Your task to perform on an android device: Do I have any events this weekend? Image 0: 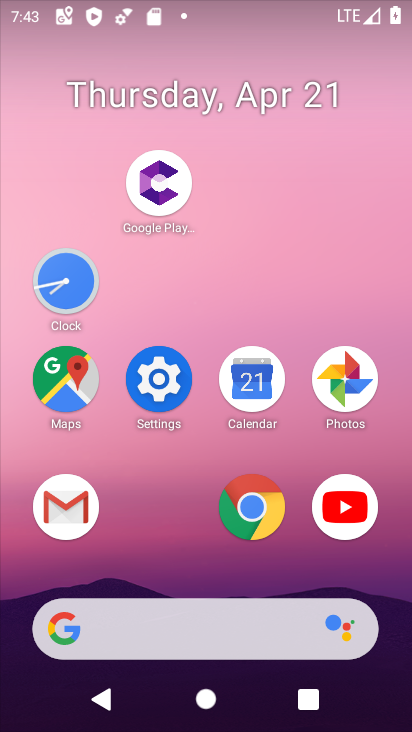
Step 0: click (249, 379)
Your task to perform on an android device: Do I have any events this weekend? Image 1: 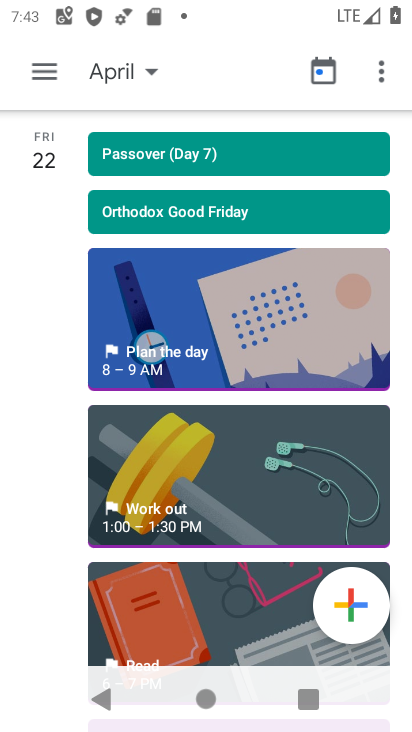
Step 1: click (151, 69)
Your task to perform on an android device: Do I have any events this weekend? Image 2: 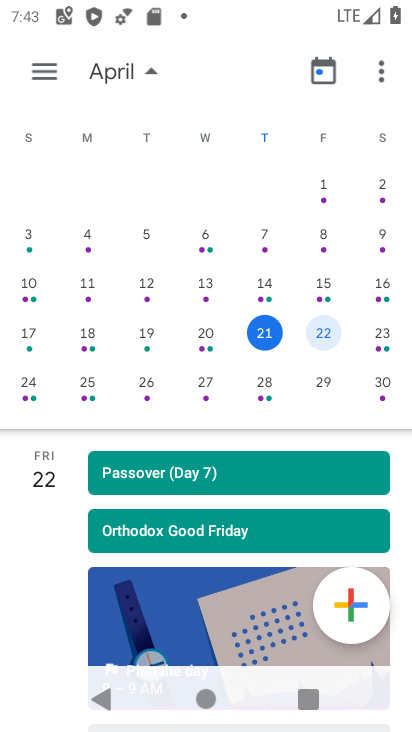
Step 2: click (382, 332)
Your task to perform on an android device: Do I have any events this weekend? Image 3: 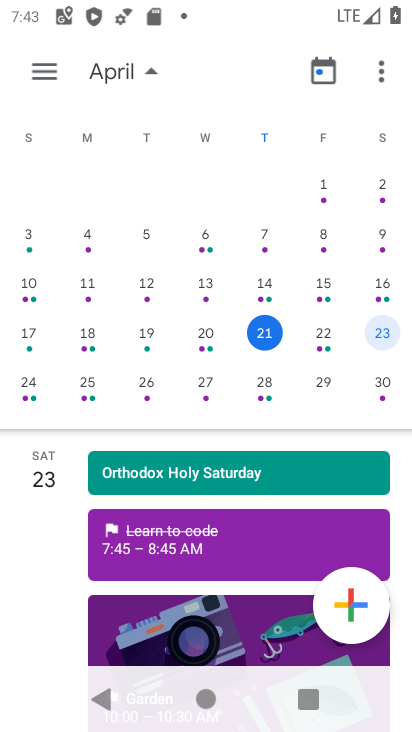
Step 3: task complete